Your task to perform on an android device: turn off picture-in-picture Image 0: 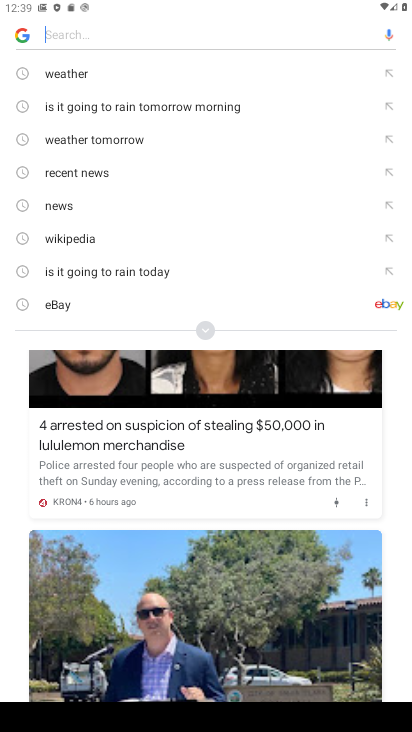
Step 0: press back button
Your task to perform on an android device: turn off picture-in-picture Image 1: 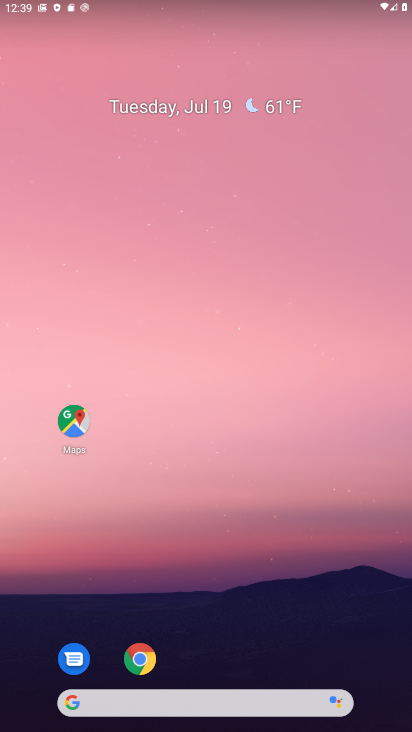
Step 1: click (132, 659)
Your task to perform on an android device: turn off picture-in-picture Image 2: 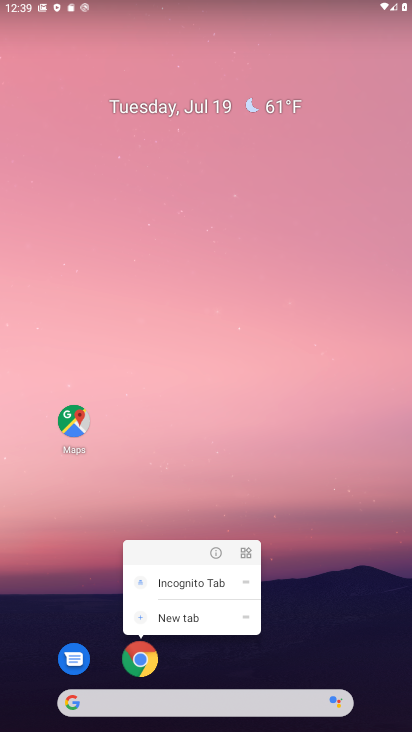
Step 2: click (132, 659)
Your task to perform on an android device: turn off picture-in-picture Image 3: 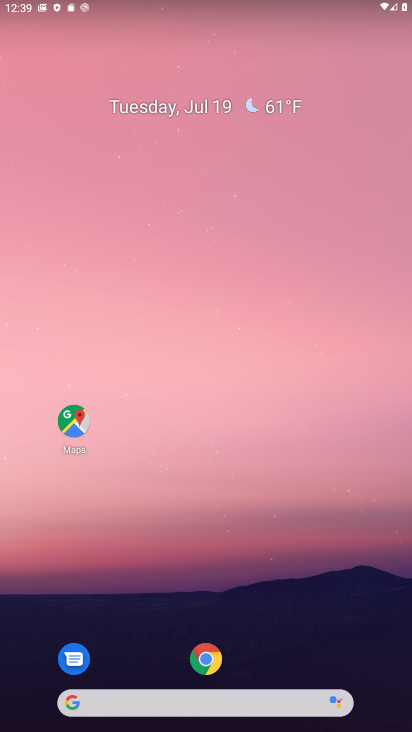
Step 3: click (206, 647)
Your task to perform on an android device: turn off picture-in-picture Image 4: 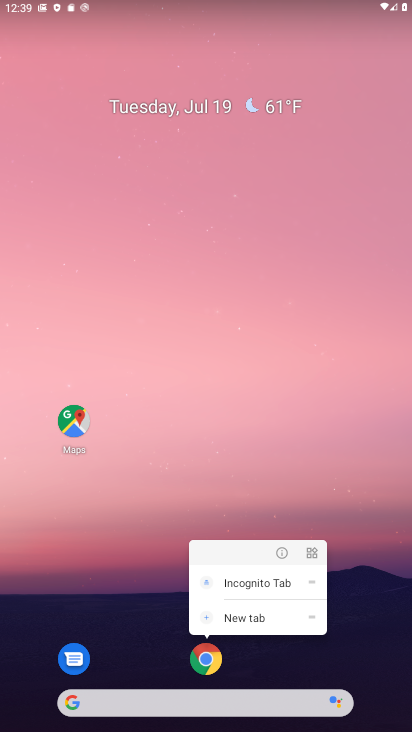
Step 4: click (285, 552)
Your task to perform on an android device: turn off picture-in-picture Image 5: 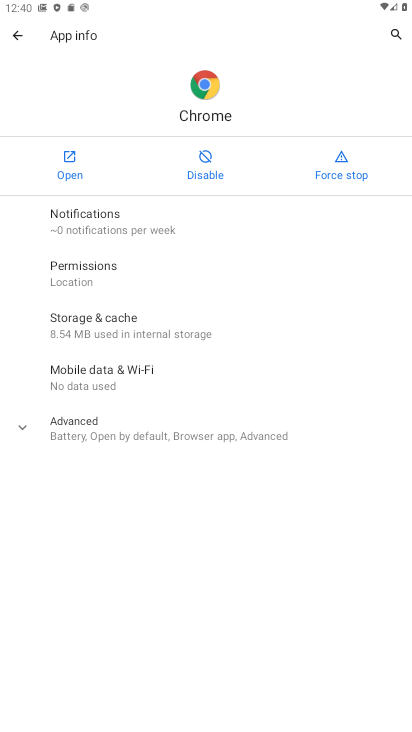
Step 5: click (24, 422)
Your task to perform on an android device: turn off picture-in-picture Image 6: 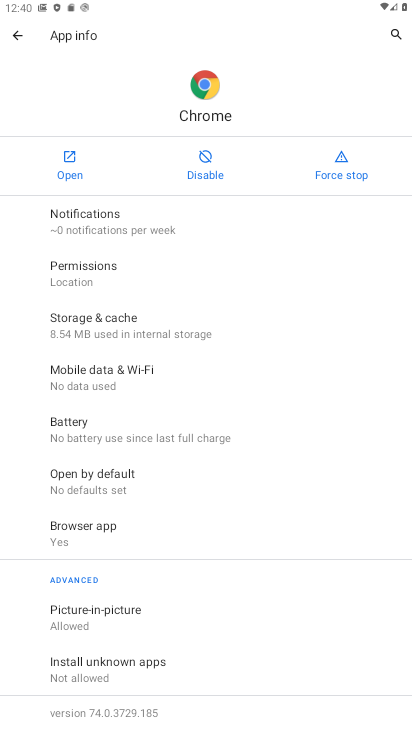
Step 6: click (90, 619)
Your task to perform on an android device: turn off picture-in-picture Image 7: 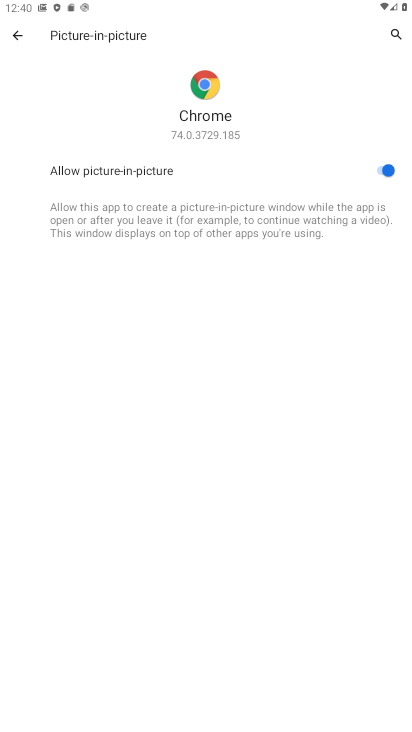
Step 7: click (389, 170)
Your task to perform on an android device: turn off picture-in-picture Image 8: 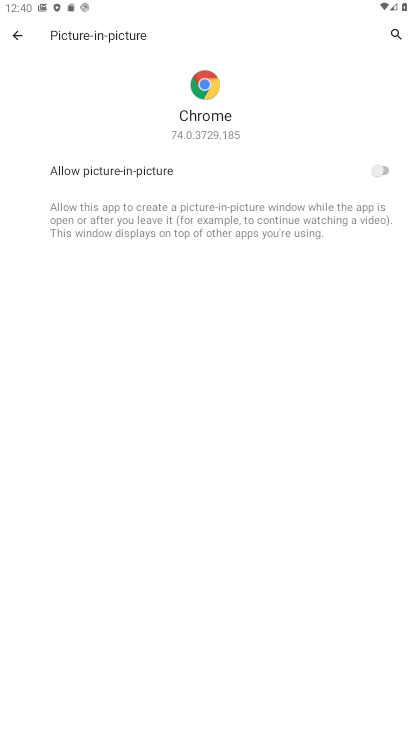
Step 8: task complete